Your task to perform on an android device: open app "Google Duo" Image 0: 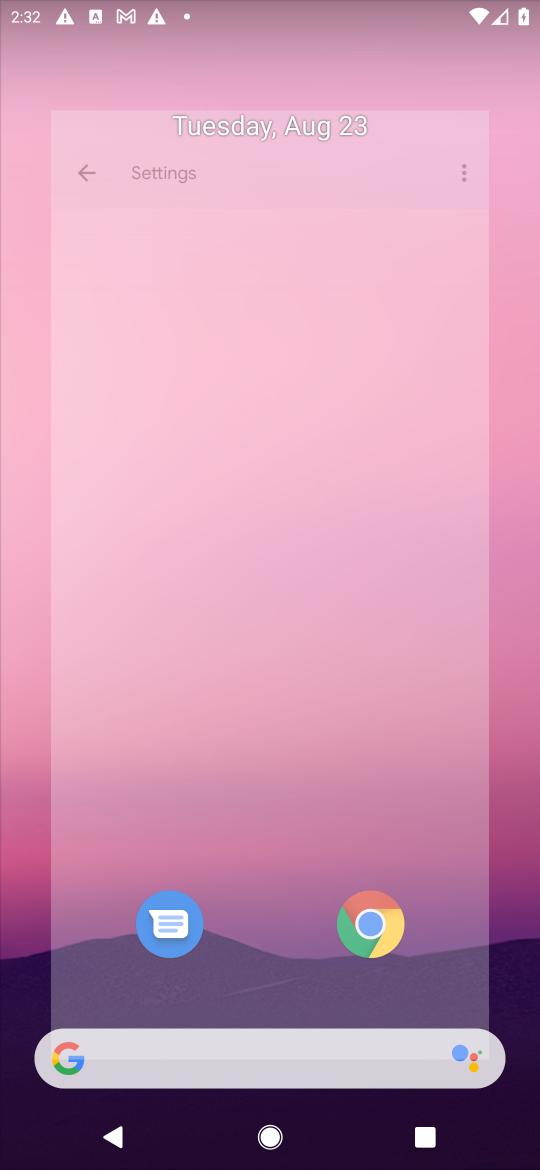
Step 0: press home button
Your task to perform on an android device: open app "Google Duo" Image 1: 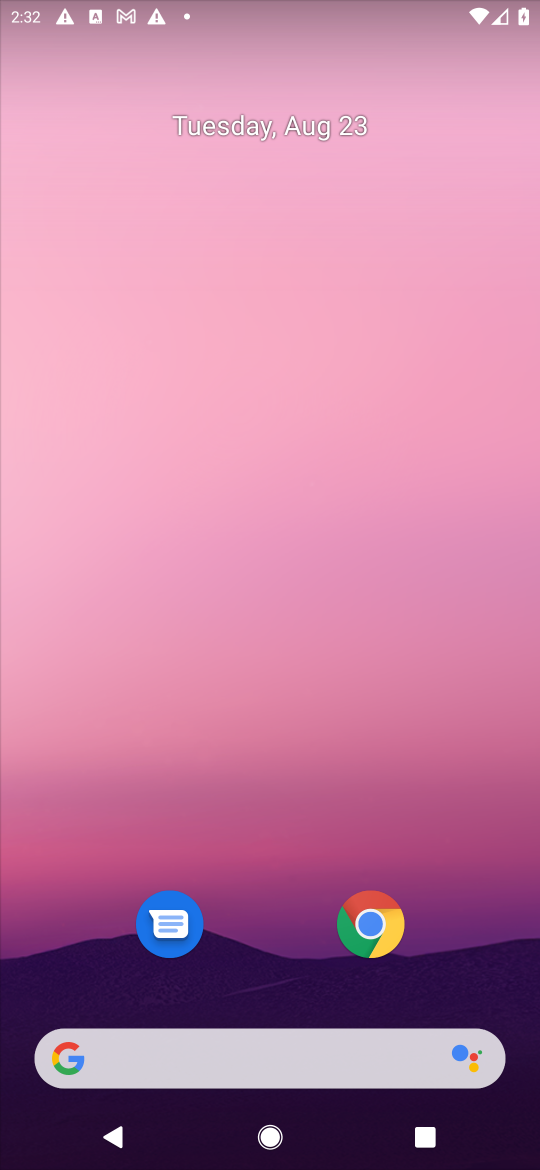
Step 1: drag from (453, 977) to (435, 213)
Your task to perform on an android device: open app "Google Duo" Image 2: 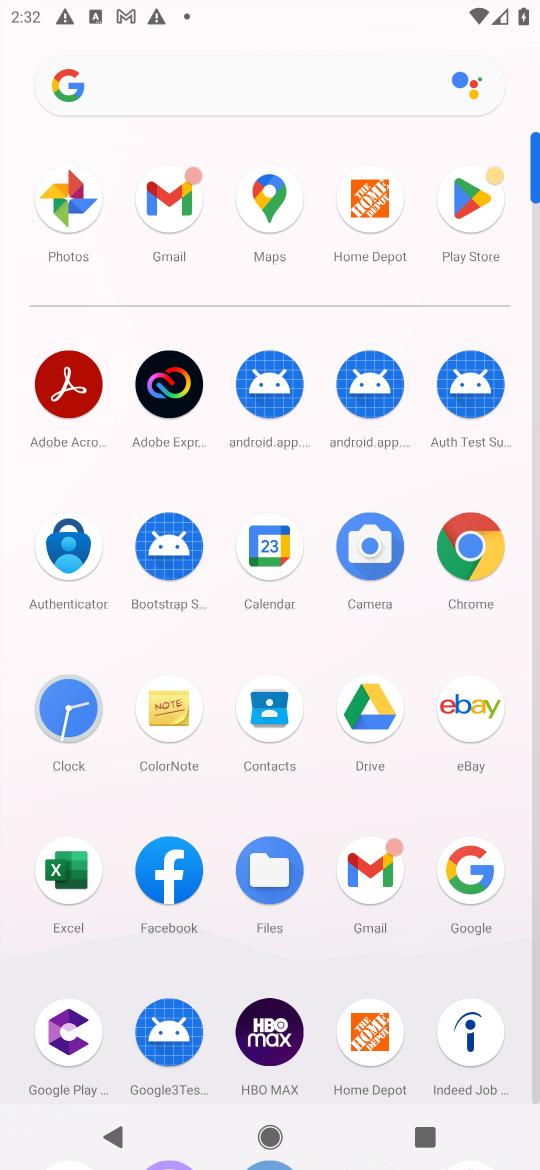
Step 2: click (468, 198)
Your task to perform on an android device: open app "Google Duo" Image 3: 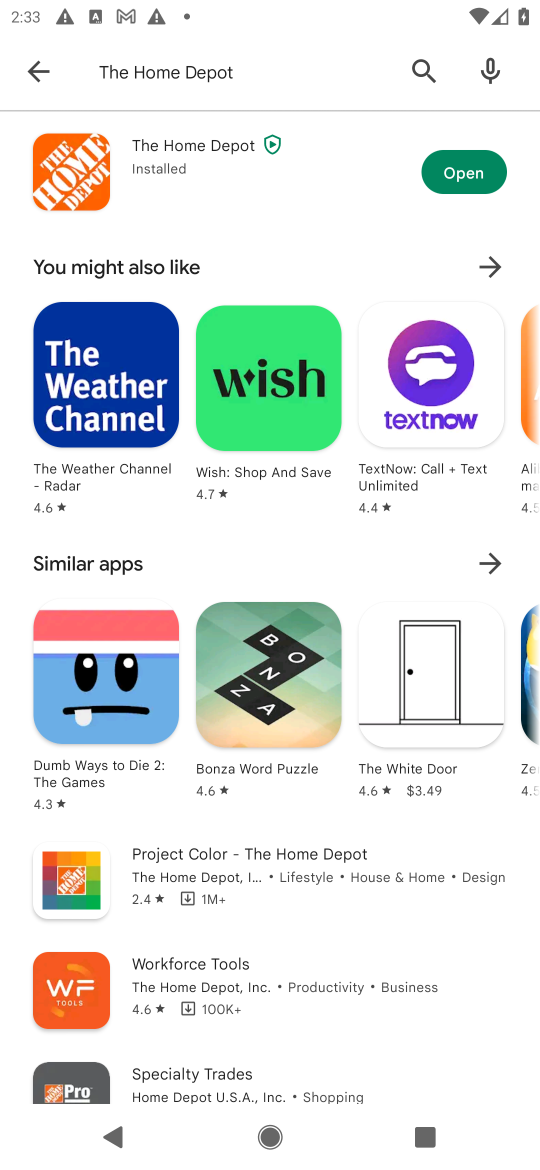
Step 3: press back button
Your task to perform on an android device: open app "Google Duo" Image 4: 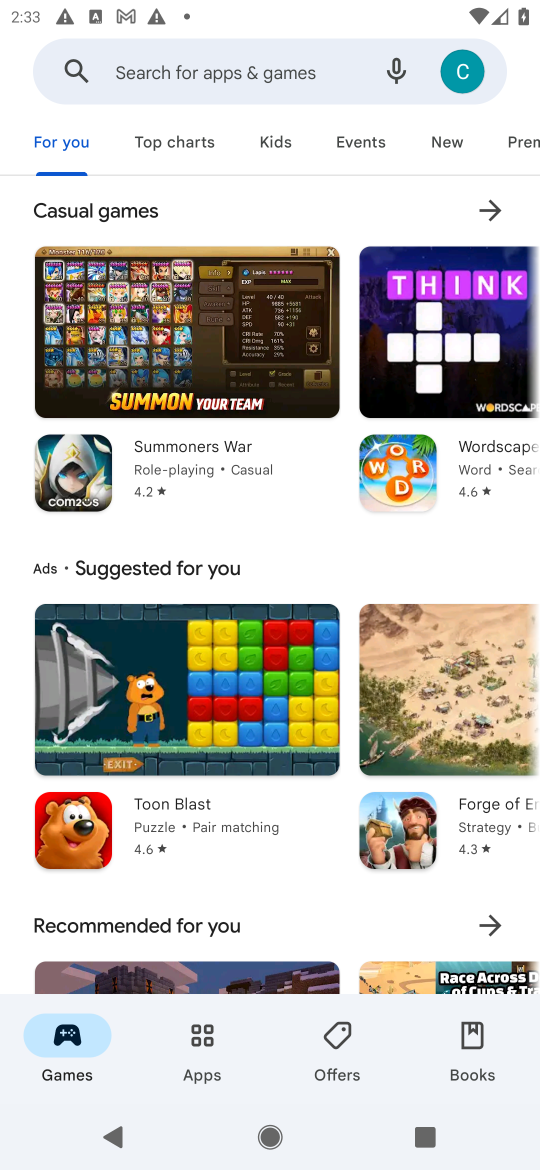
Step 4: click (235, 64)
Your task to perform on an android device: open app "Google Duo" Image 5: 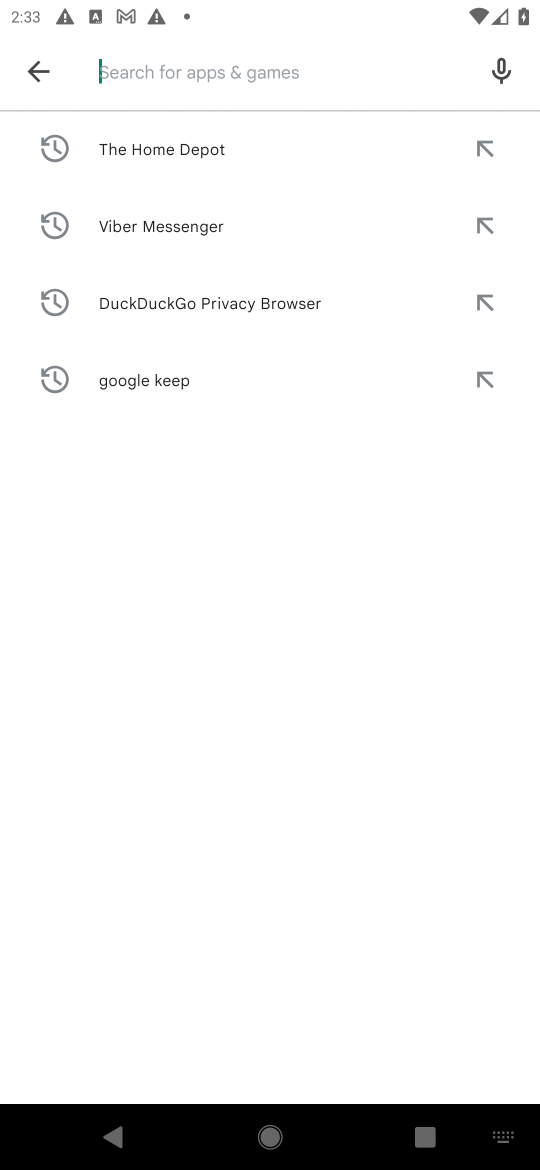
Step 5: type "Google Duo"
Your task to perform on an android device: open app "Google Duo" Image 6: 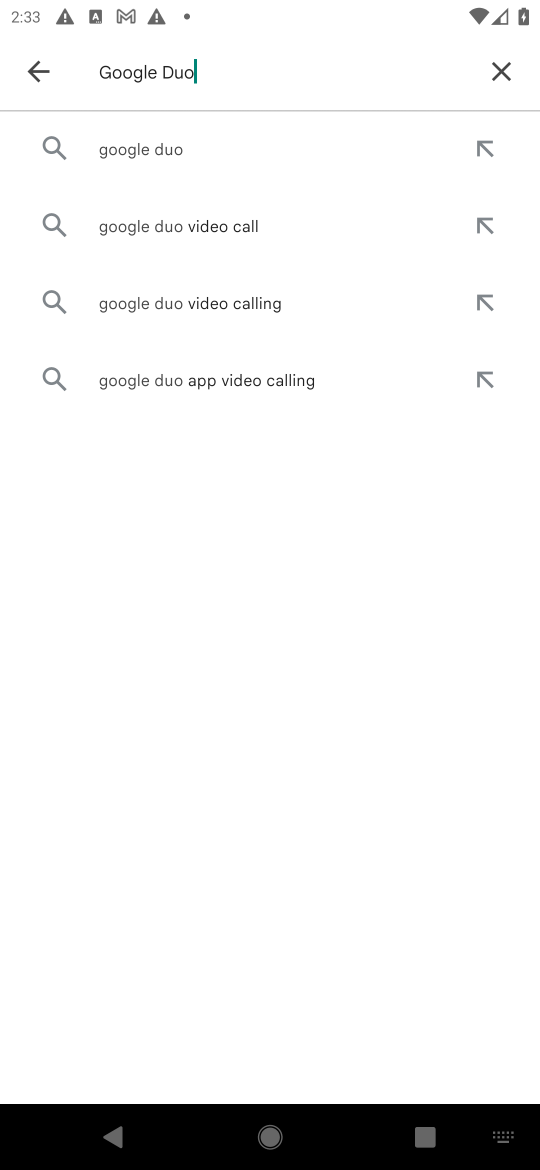
Step 6: press enter
Your task to perform on an android device: open app "Google Duo" Image 7: 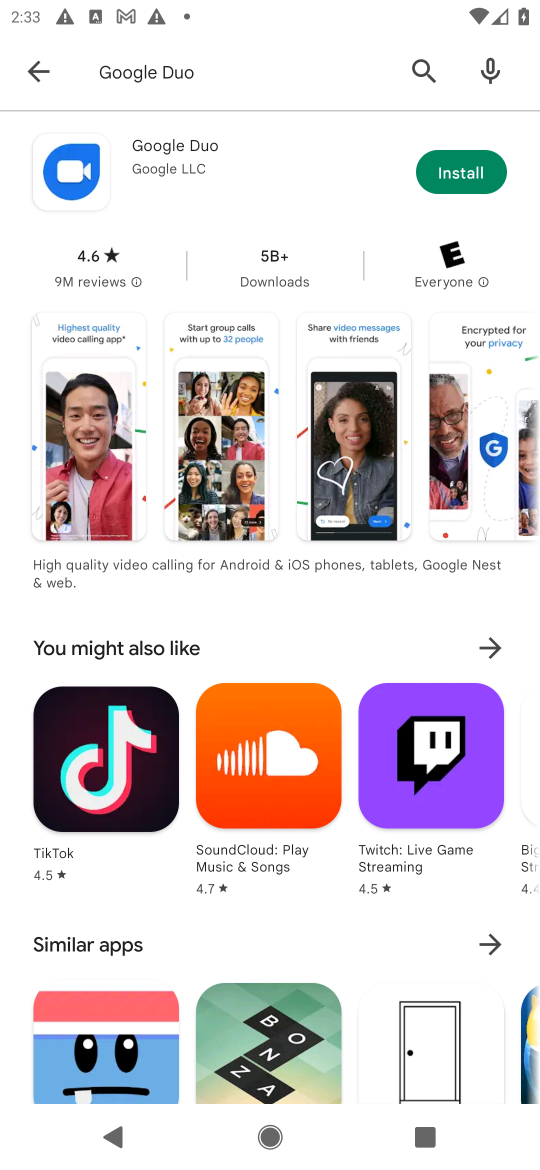
Step 7: task complete